Your task to perform on an android device: Empty the shopping cart on ebay.com. Add "logitech g pro" to the cart on ebay.com Image 0: 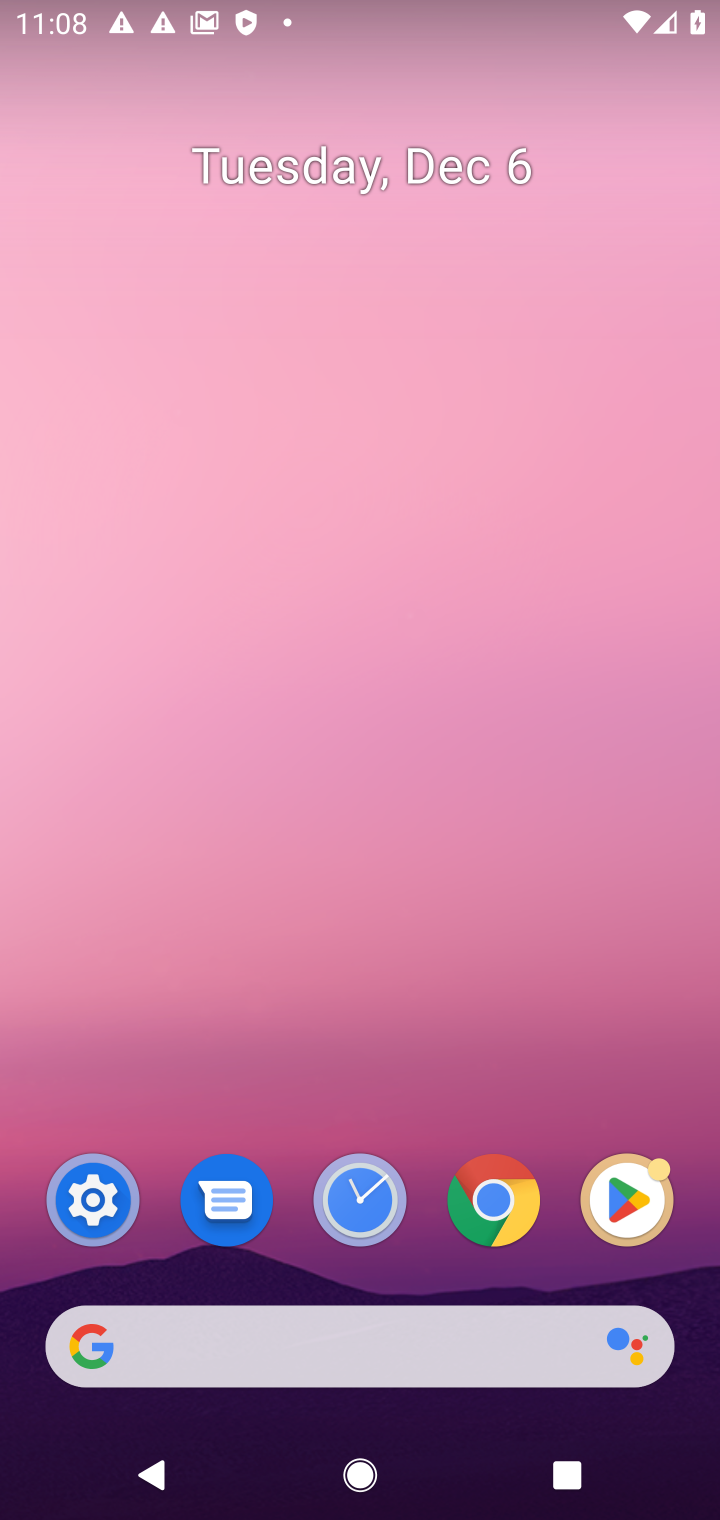
Step 0: click (212, 1367)
Your task to perform on an android device: Empty the shopping cart on ebay.com. Add "logitech g pro" to the cart on ebay.com Image 1: 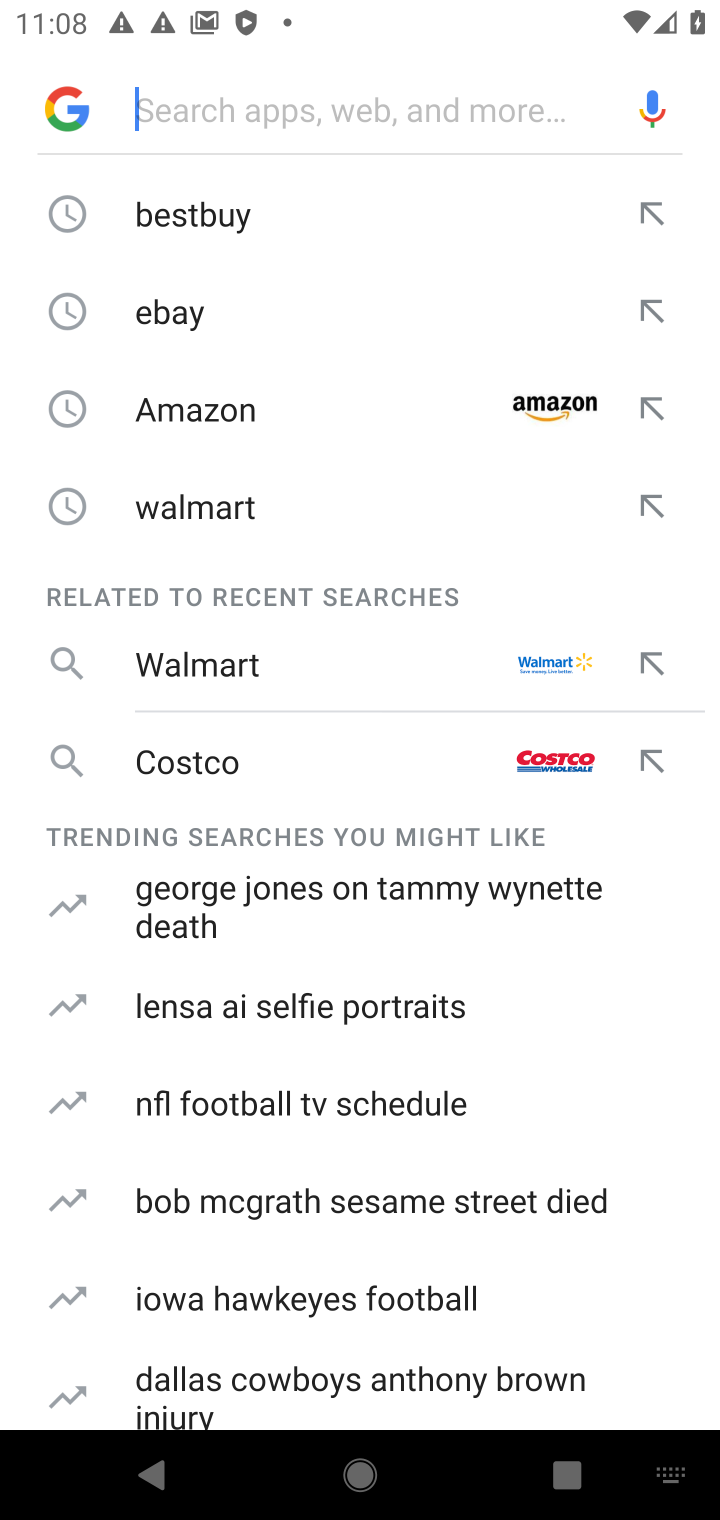
Step 1: type "ebay.com"
Your task to perform on an android device: Empty the shopping cart on ebay.com. Add "logitech g pro" to the cart on ebay.com Image 2: 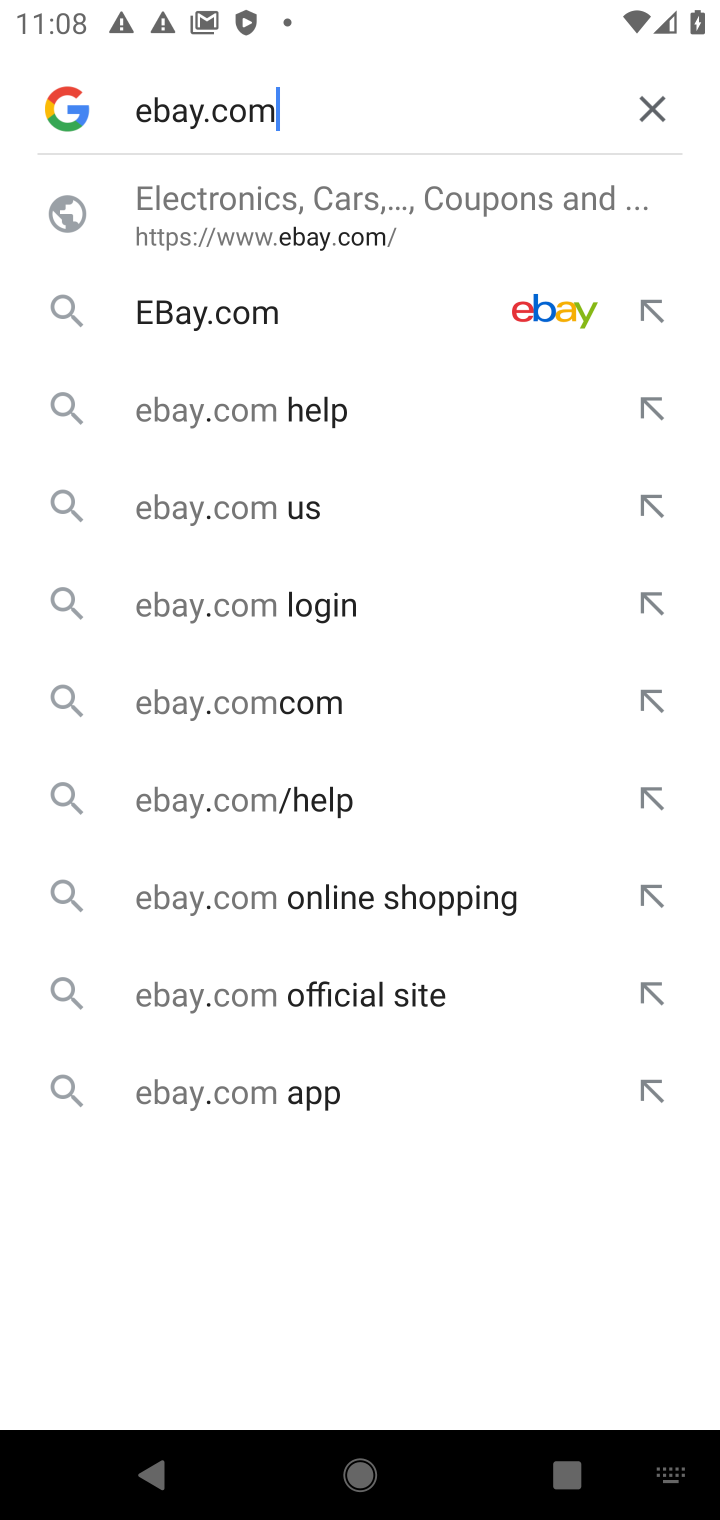
Step 2: click (167, 309)
Your task to perform on an android device: Empty the shopping cart on ebay.com. Add "logitech g pro" to the cart on ebay.com Image 3: 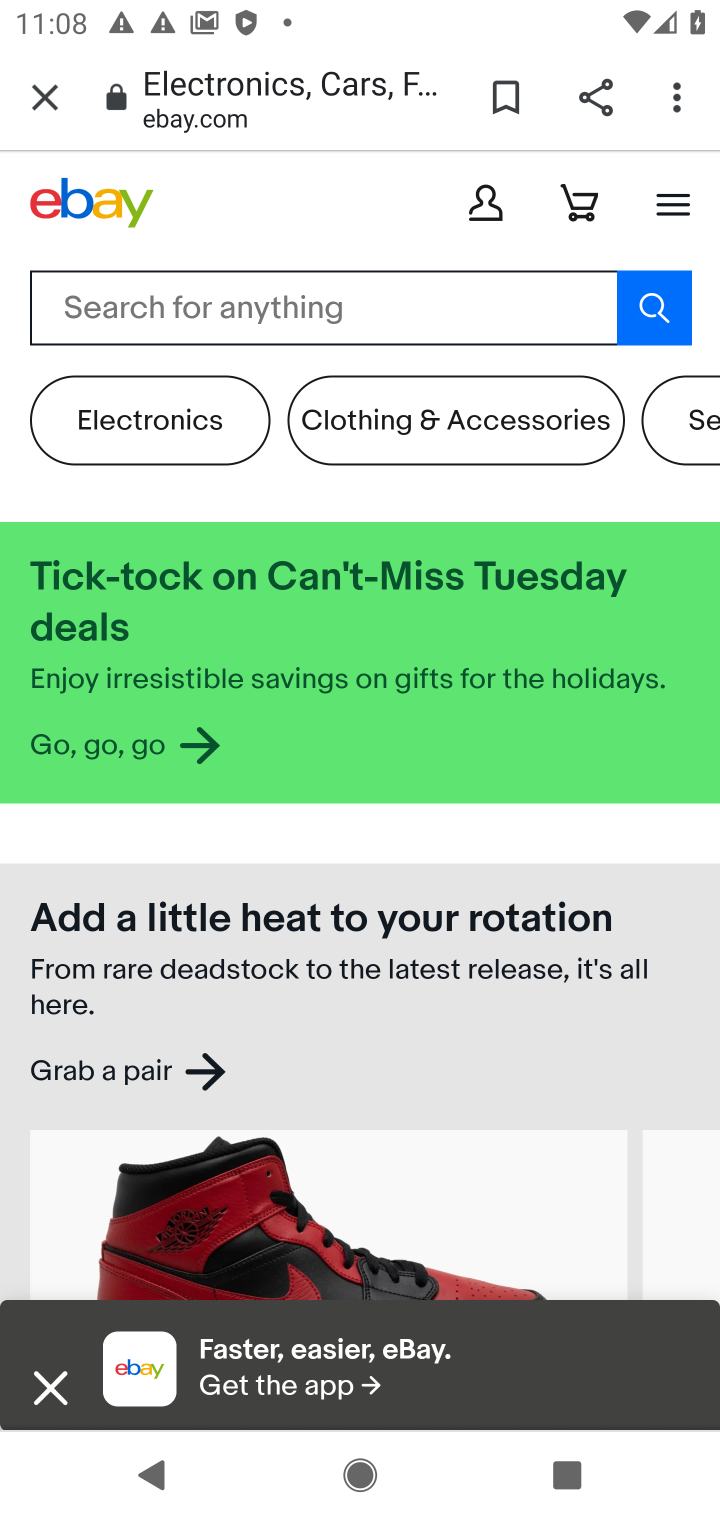
Step 3: task complete